Your task to perform on an android device: Open calendar and show me the second week of next month Image 0: 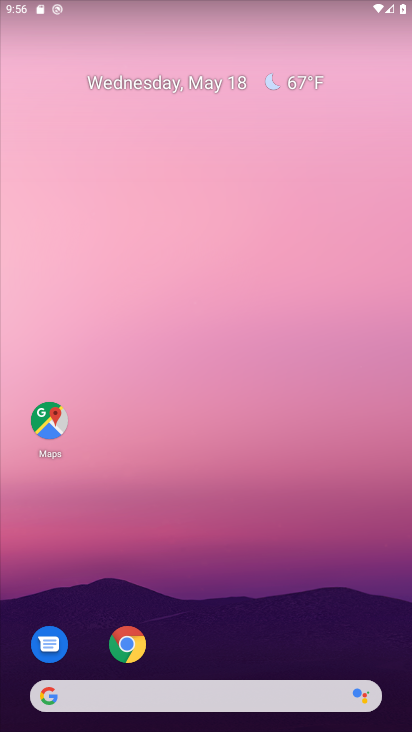
Step 0: drag from (266, 601) to (224, 18)
Your task to perform on an android device: Open calendar and show me the second week of next month Image 1: 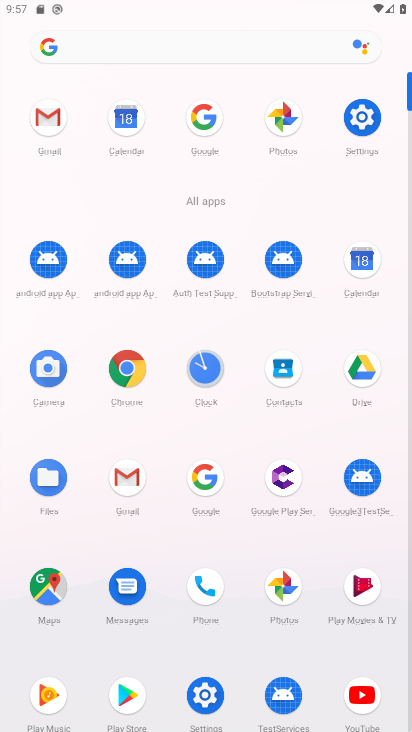
Step 1: click (364, 260)
Your task to perform on an android device: Open calendar and show me the second week of next month Image 2: 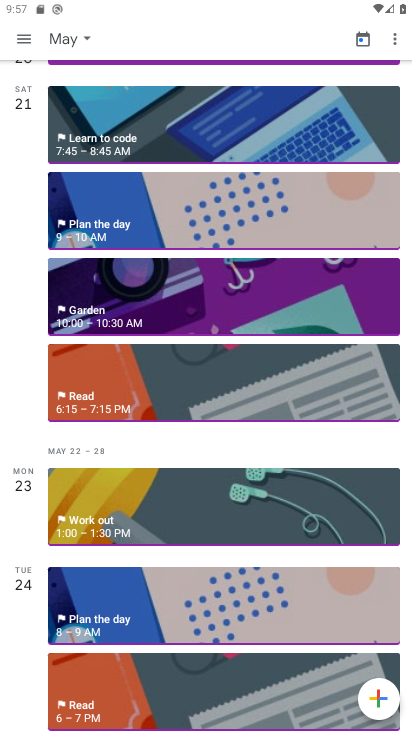
Step 2: click (88, 41)
Your task to perform on an android device: Open calendar and show me the second week of next month Image 3: 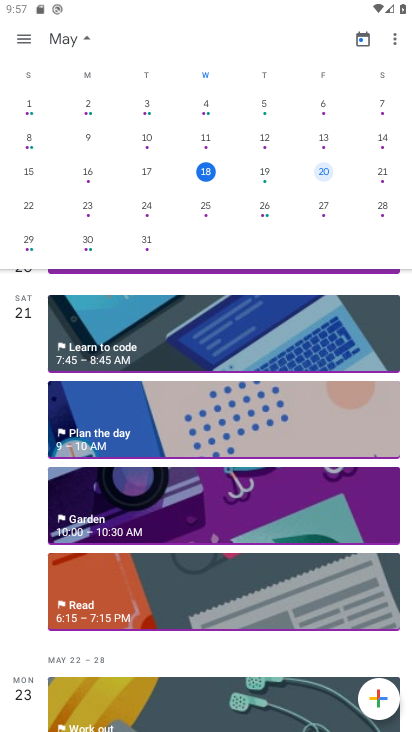
Step 3: click (363, 39)
Your task to perform on an android device: Open calendar and show me the second week of next month Image 4: 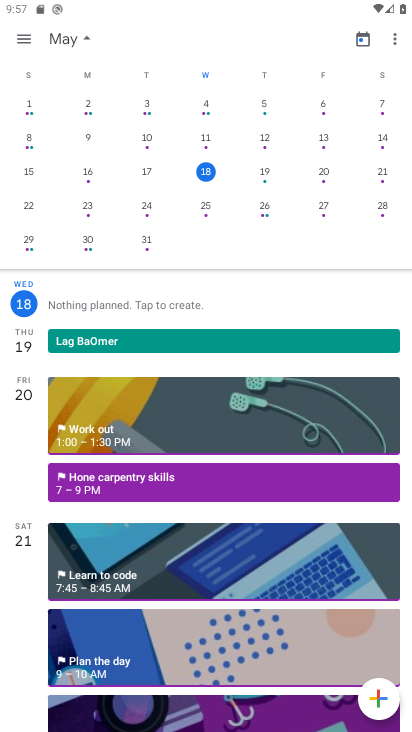
Step 4: drag from (355, 169) to (38, 226)
Your task to perform on an android device: Open calendar and show me the second week of next month Image 5: 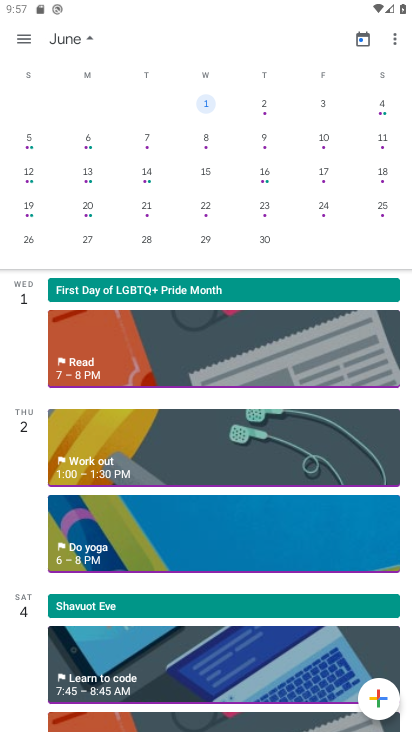
Step 5: click (91, 172)
Your task to perform on an android device: Open calendar and show me the second week of next month Image 6: 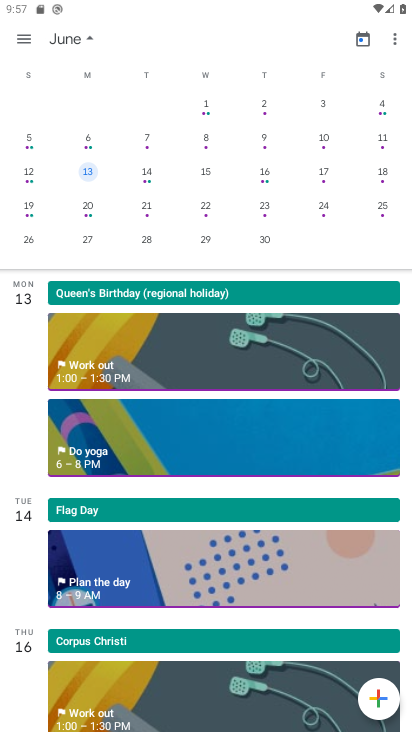
Step 6: click (29, 33)
Your task to perform on an android device: Open calendar and show me the second week of next month Image 7: 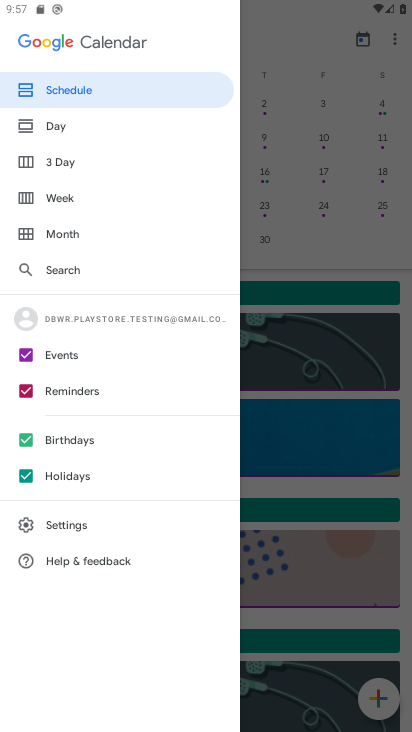
Step 7: click (63, 205)
Your task to perform on an android device: Open calendar and show me the second week of next month Image 8: 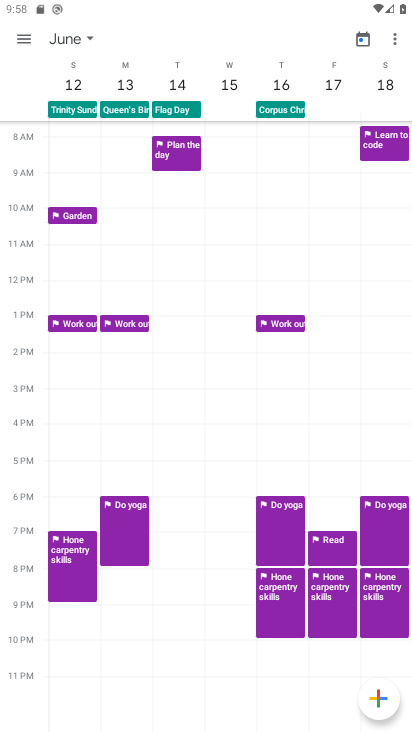
Step 8: task complete